Your task to perform on an android device: Play the last video I watched on Youtube Image 0: 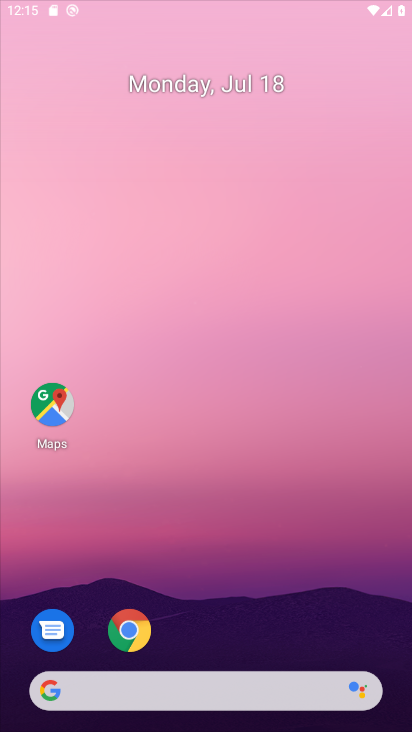
Step 0: drag from (246, 641) to (221, 453)
Your task to perform on an android device: Play the last video I watched on Youtube Image 1: 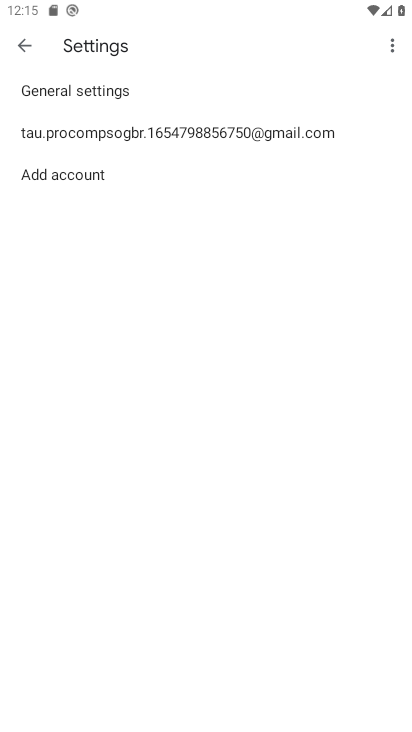
Step 1: press home button
Your task to perform on an android device: Play the last video I watched on Youtube Image 2: 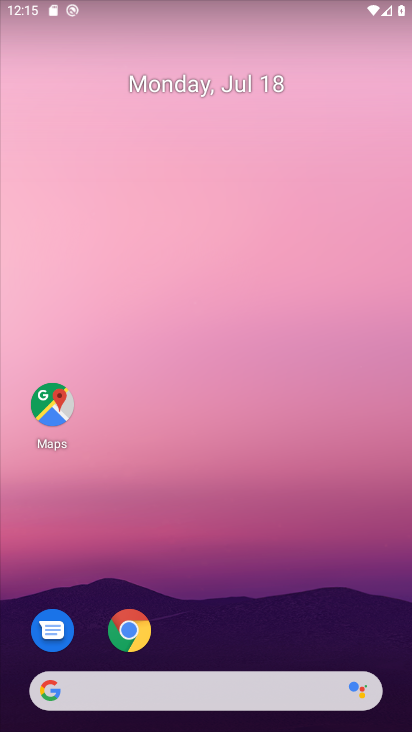
Step 2: drag from (280, 616) to (257, 257)
Your task to perform on an android device: Play the last video I watched on Youtube Image 3: 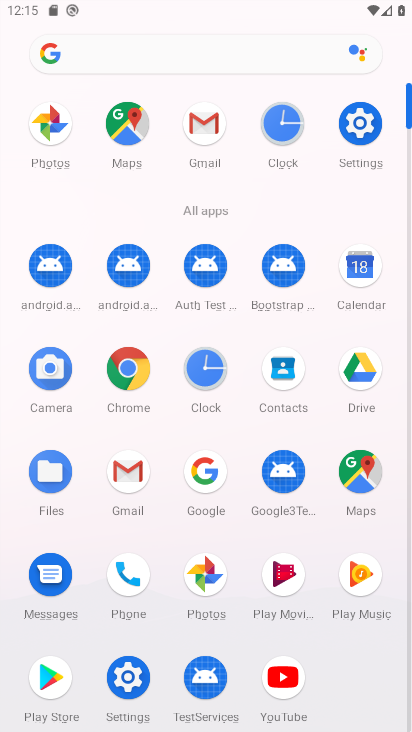
Step 3: click (293, 689)
Your task to perform on an android device: Play the last video I watched on Youtube Image 4: 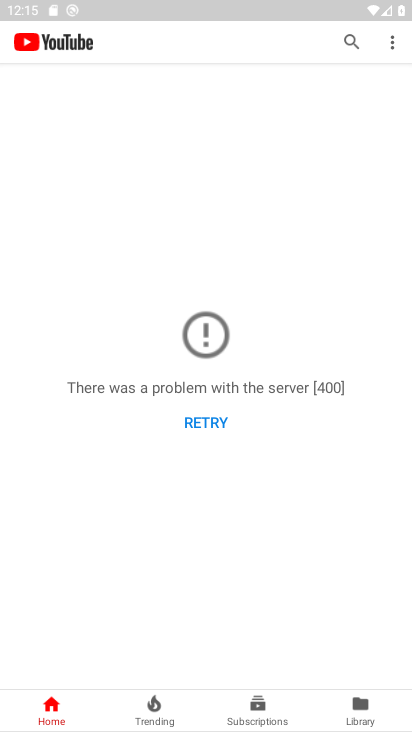
Step 4: click (362, 725)
Your task to perform on an android device: Play the last video I watched on Youtube Image 5: 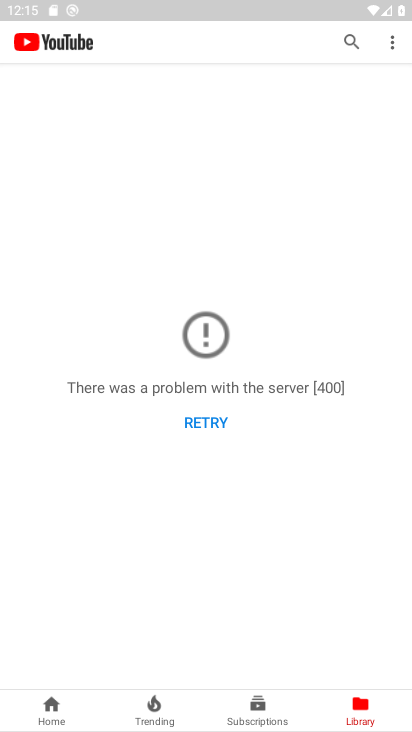
Step 5: task complete